Your task to perform on an android device: Find coffee shops on Maps Image 0: 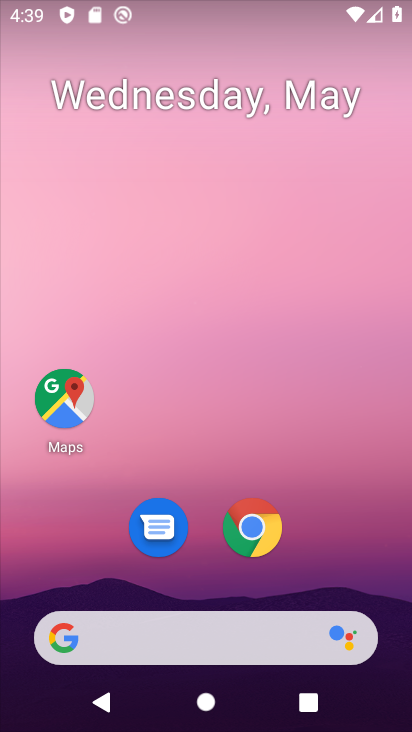
Step 0: drag from (285, 551) to (45, 24)
Your task to perform on an android device: Find coffee shops on Maps Image 1: 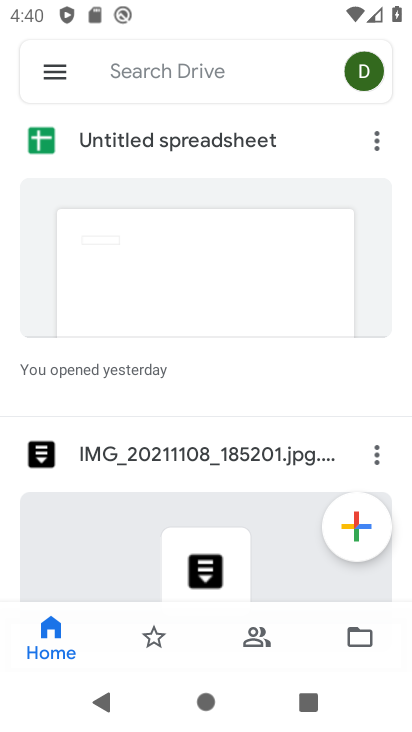
Step 1: press home button
Your task to perform on an android device: Find coffee shops on Maps Image 2: 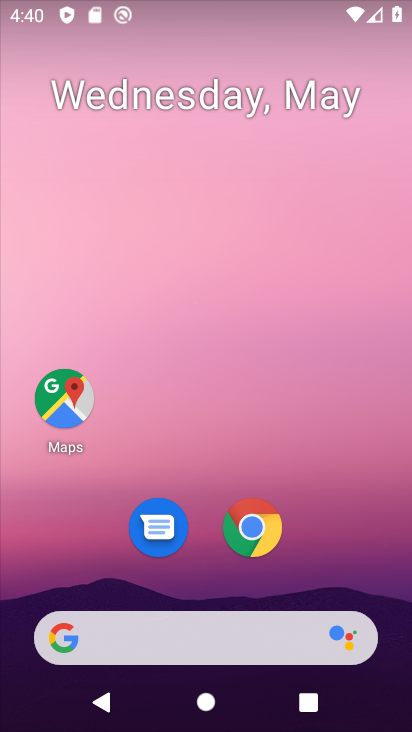
Step 2: drag from (220, 433) to (308, 3)
Your task to perform on an android device: Find coffee shops on Maps Image 3: 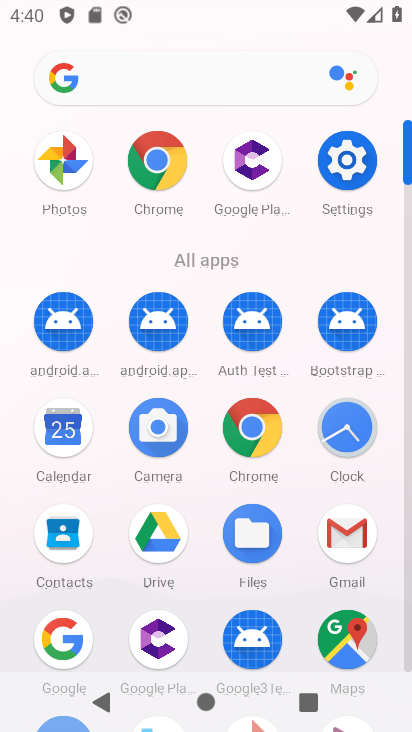
Step 3: click (348, 634)
Your task to perform on an android device: Find coffee shops on Maps Image 4: 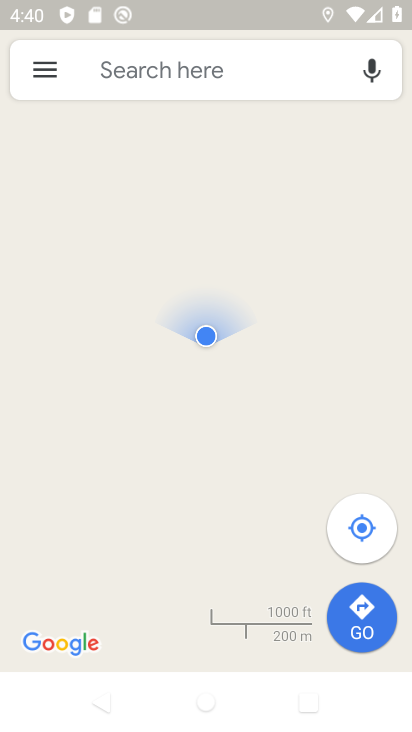
Step 4: task complete